Your task to perform on an android device: Open the web browser Image 0: 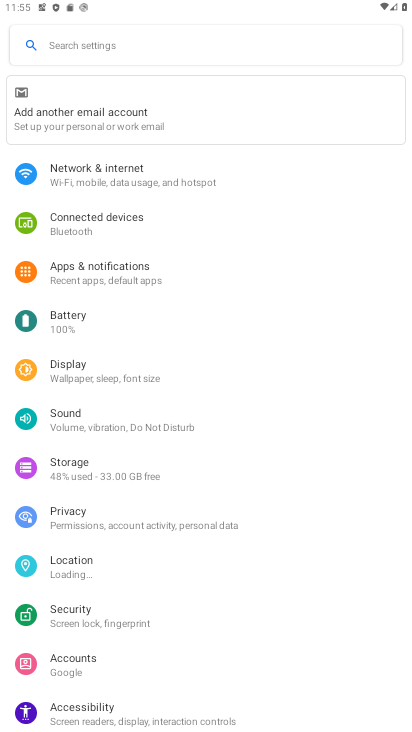
Step 0: press home button
Your task to perform on an android device: Open the web browser Image 1: 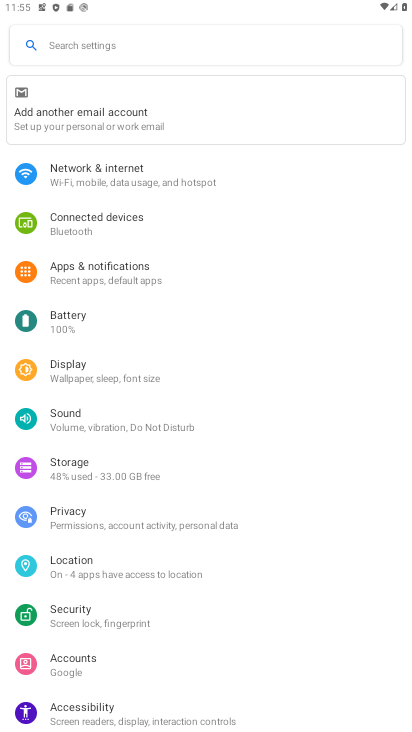
Step 1: press home button
Your task to perform on an android device: Open the web browser Image 2: 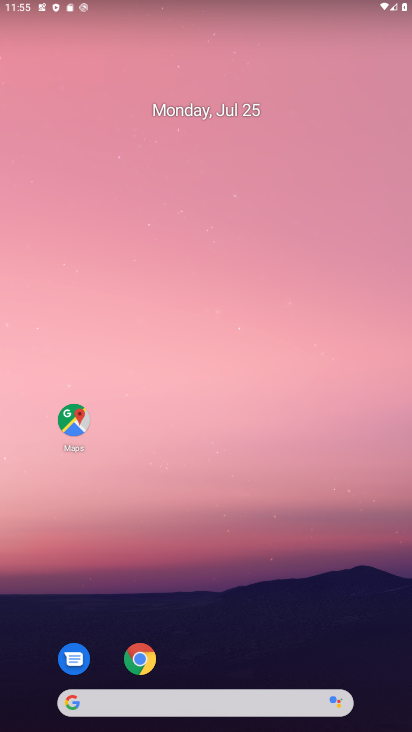
Step 2: drag from (167, 654) to (246, 175)
Your task to perform on an android device: Open the web browser Image 3: 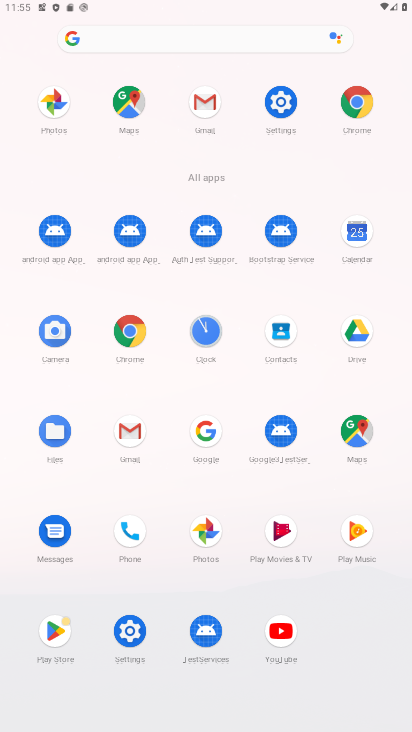
Step 3: click (129, 334)
Your task to perform on an android device: Open the web browser Image 4: 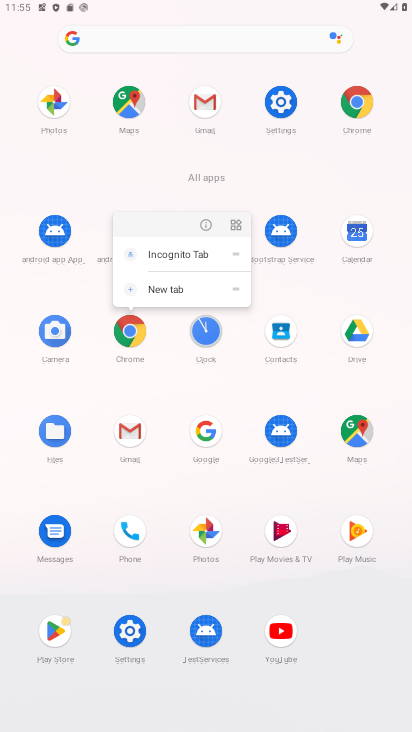
Step 4: click (207, 225)
Your task to perform on an android device: Open the web browser Image 5: 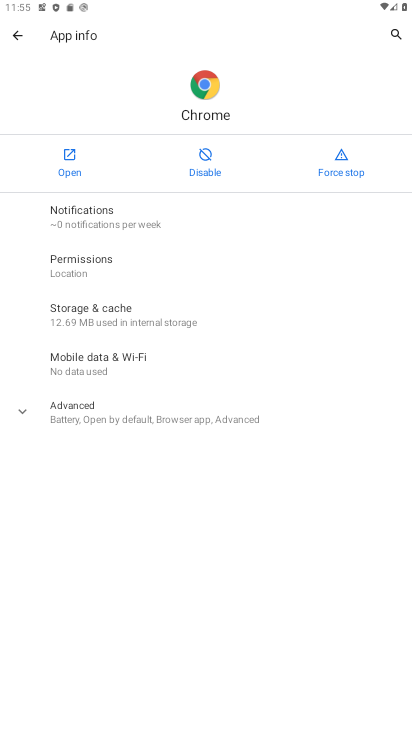
Step 5: click (52, 170)
Your task to perform on an android device: Open the web browser Image 6: 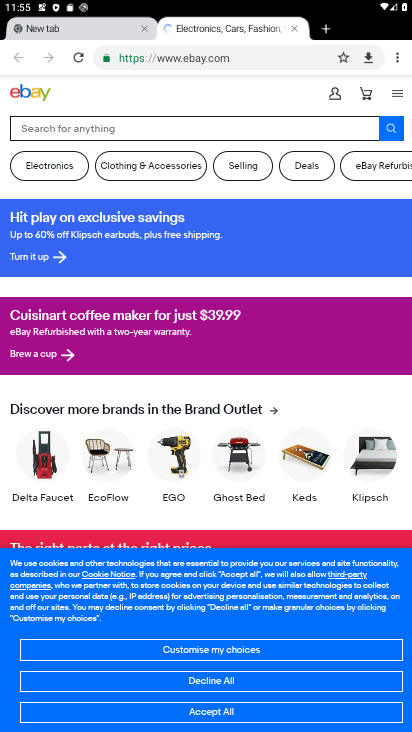
Step 6: task complete